Your task to perform on an android device: Toggle the flashlight Image 0: 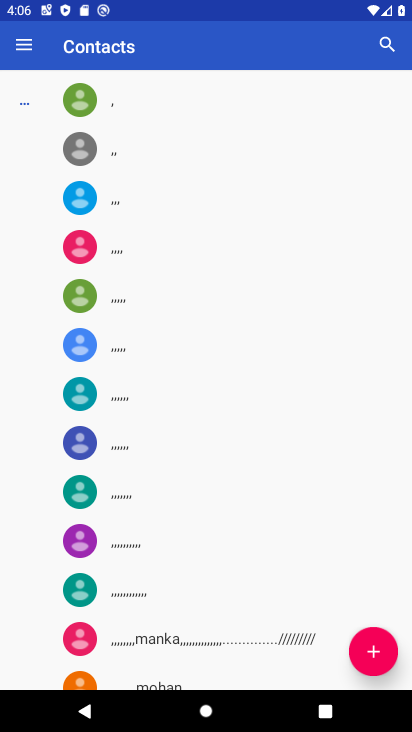
Step 0: drag from (273, 0) to (265, 451)
Your task to perform on an android device: Toggle the flashlight Image 1: 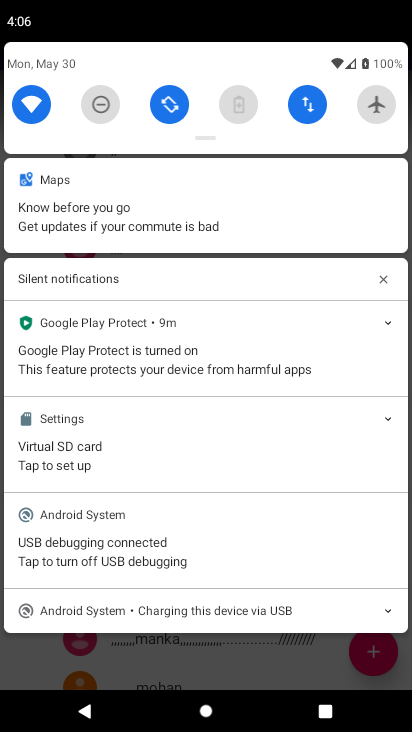
Step 1: task complete